Your task to perform on an android device: find photos in the google photos app Image 0: 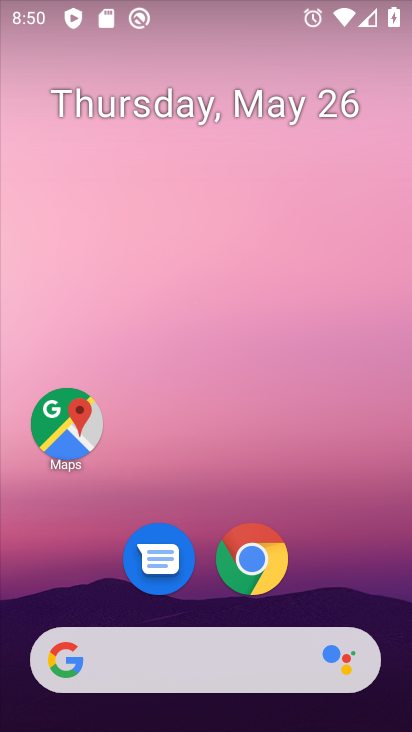
Step 0: drag from (318, 581) to (348, 99)
Your task to perform on an android device: find photos in the google photos app Image 1: 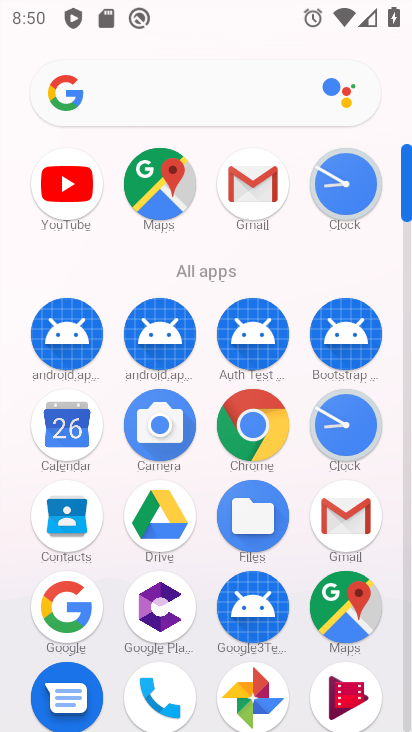
Step 1: click (248, 691)
Your task to perform on an android device: find photos in the google photos app Image 2: 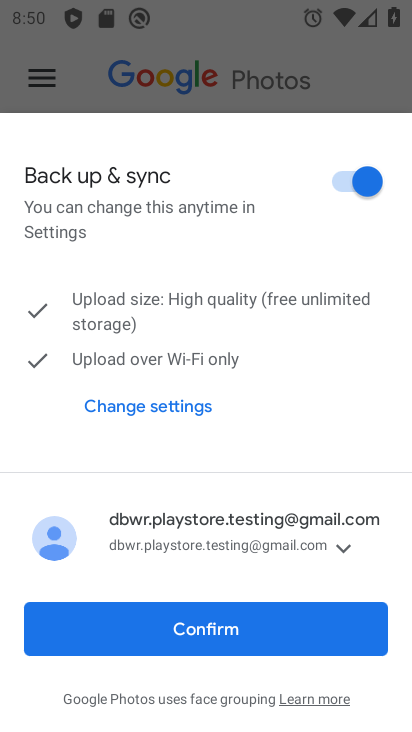
Step 2: click (169, 640)
Your task to perform on an android device: find photos in the google photos app Image 3: 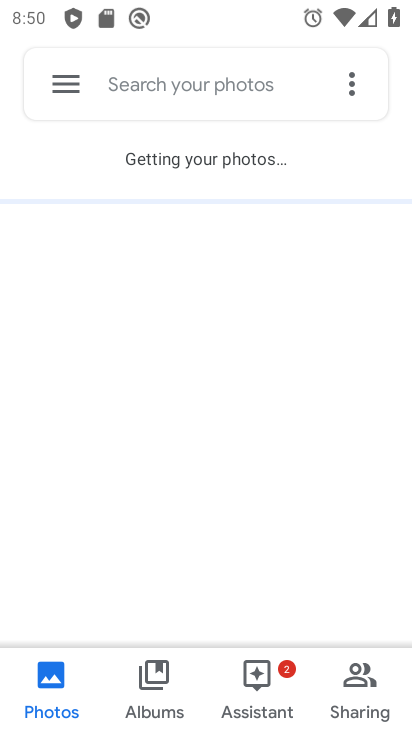
Step 3: task complete